Your task to perform on an android device: toggle location history Image 0: 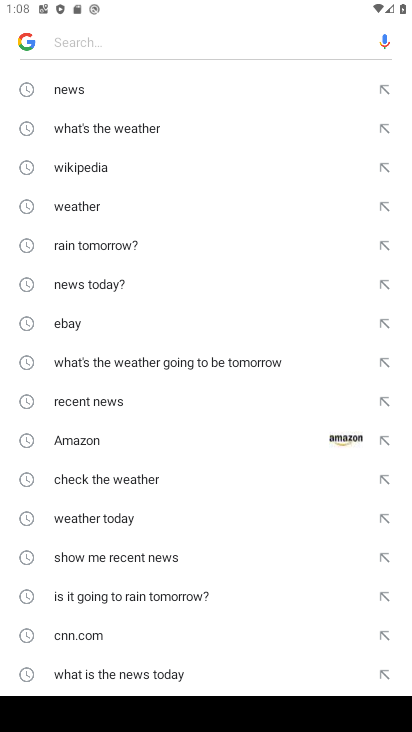
Step 0: press home button
Your task to perform on an android device: toggle location history Image 1: 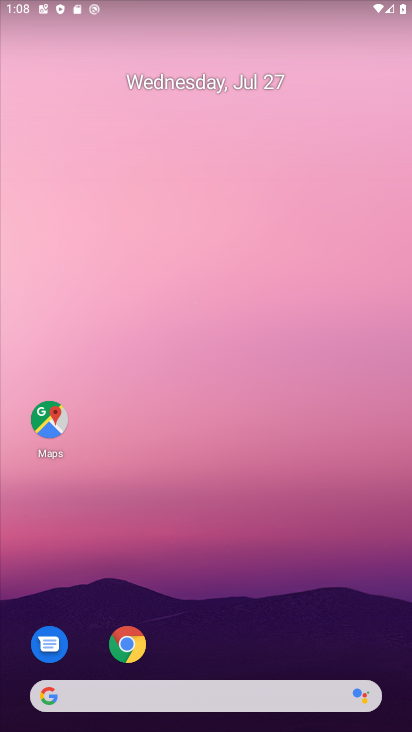
Step 1: click (353, 119)
Your task to perform on an android device: toggle location history Image 2: 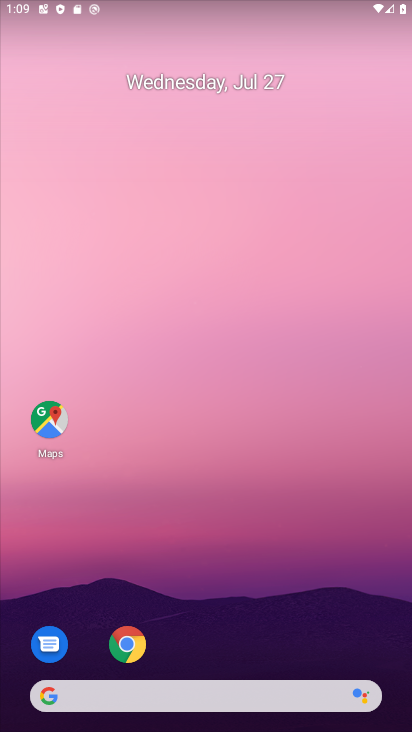
Step 2: drag from (299, 613) to (203, 0)
Your task to perform on an android device: toggle location history Image 3: 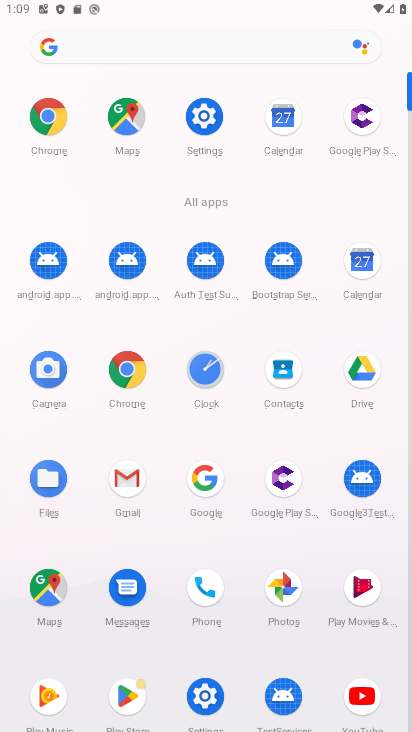
Step 3: click (202, 704)
Your task to perform on an android device: toggle location history Image 4: 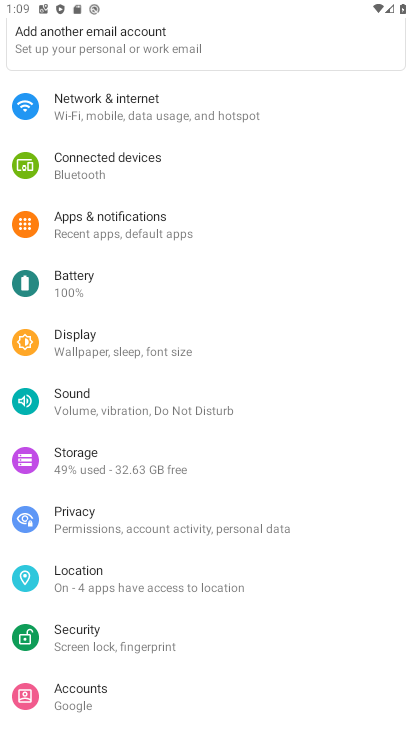
Step 4: click (128, 584)
Your task to perform on an android device: toggle location history Image 5: 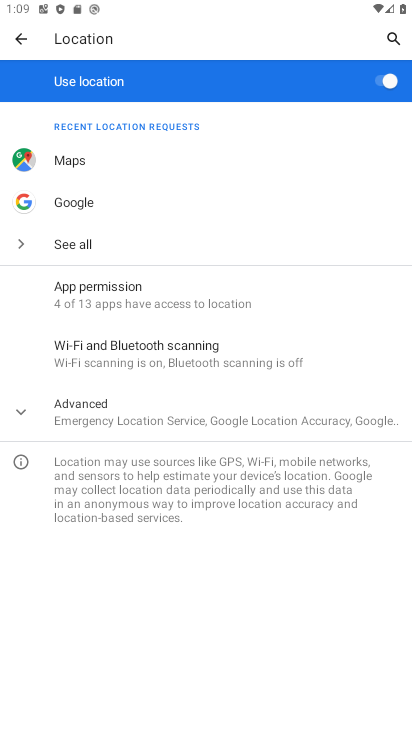
Step 5: click (266, 421)
Your task to perform on an android device: toggle location history Image 6: 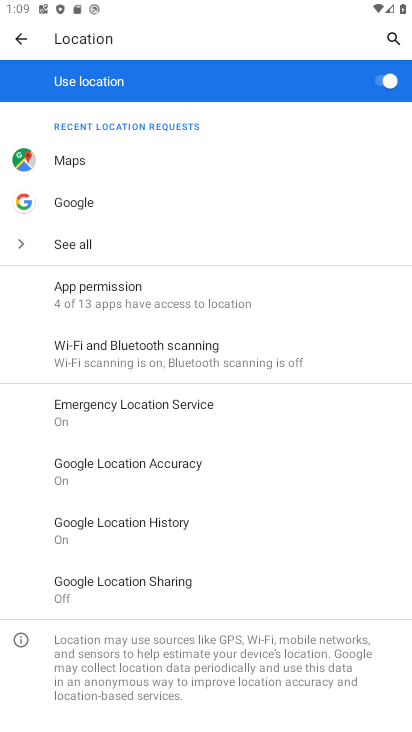
Step 6: click (165, 508)
Your task to perform on an android device: toggle location history Image 7: 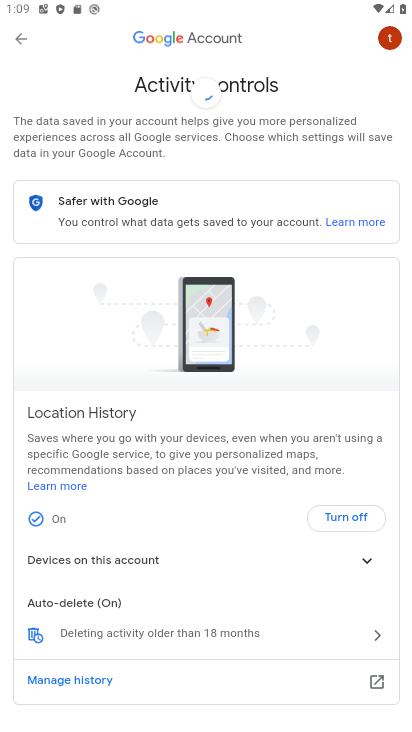
Step 7: click (340, 508)
Your task to perform on an android device: toggle location history Image 8: 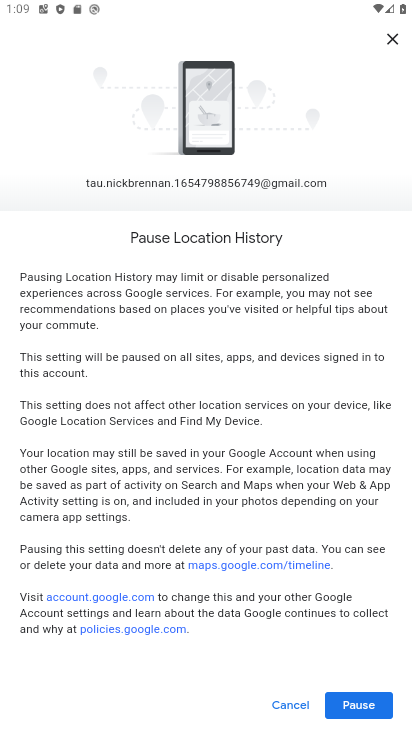
Step 8: click (352, 699)
Your task to perform on an android device: toggle location history Image 9: 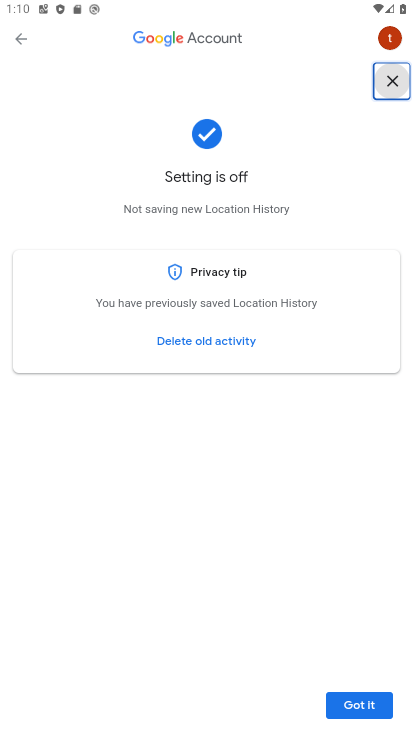
Step 9: task complete